Your task to perform on an android device: change your default location settings in chrome Image 0: 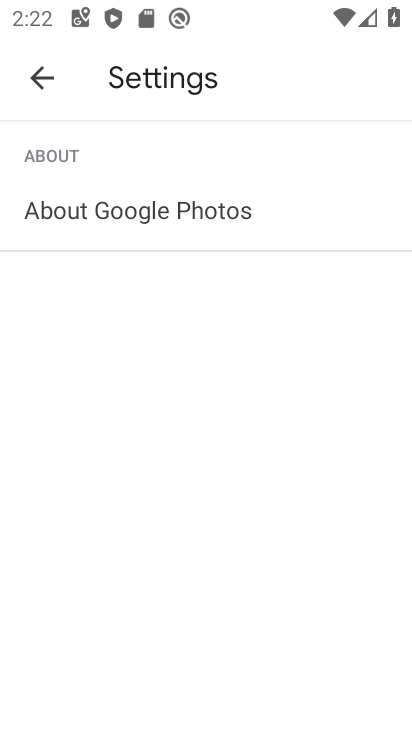
Step 0: press home button
Your task to perform on an android device: change your default location settings in chrome Image 1: 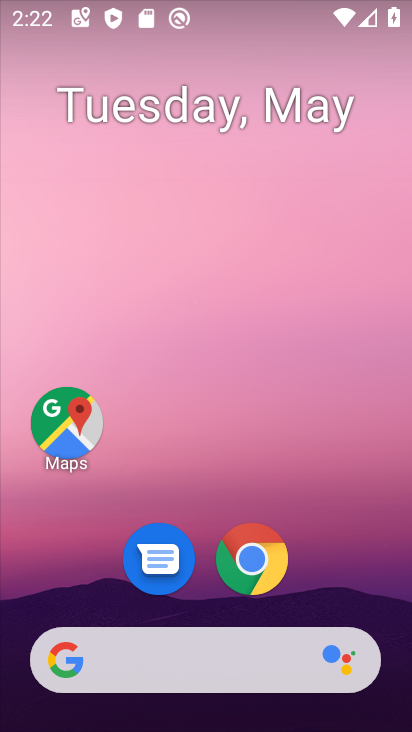
Step 1: drag from (183, 671) to (316, 113)
Your task to perform on an android device: change your default location settings in chrome Image 2: 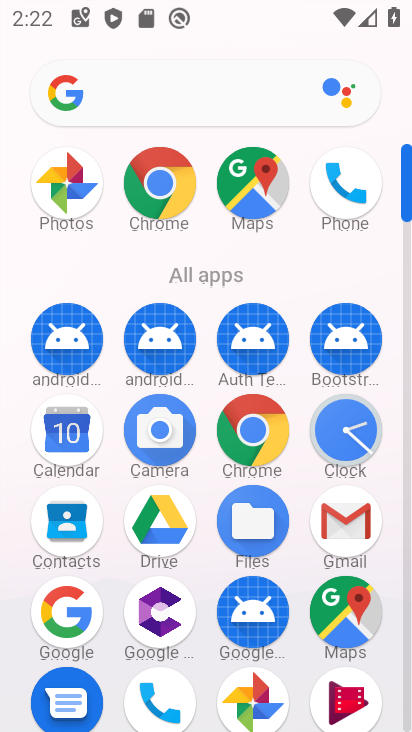
Step 2: click (158, 194)
Your task to perform on an android device: change your default location settings in chrome Image 3: 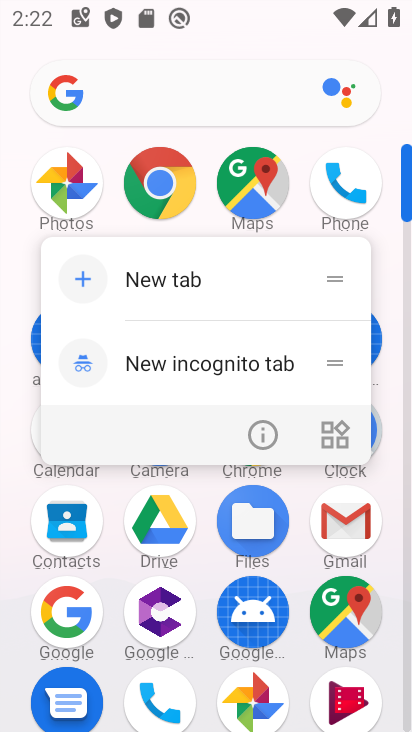
Step 3: click (163, 185)
Your task to perform on an android device: change your default location settings in chrome Image 4: 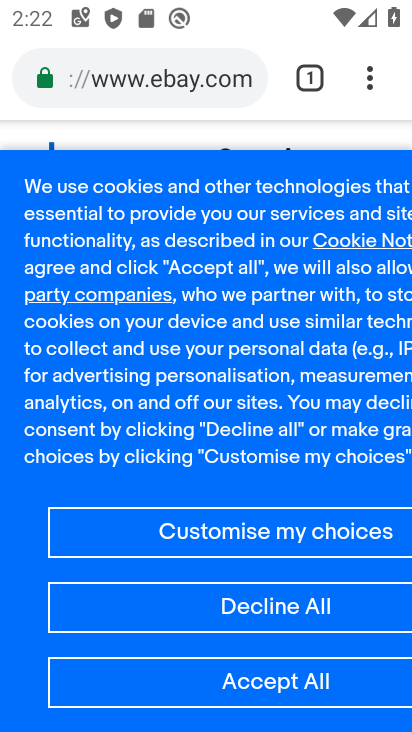
Step 4: drag from (368, 92) to (238, 616)
Your task to perform on an android device: change your default location settings in chrome Image 5: 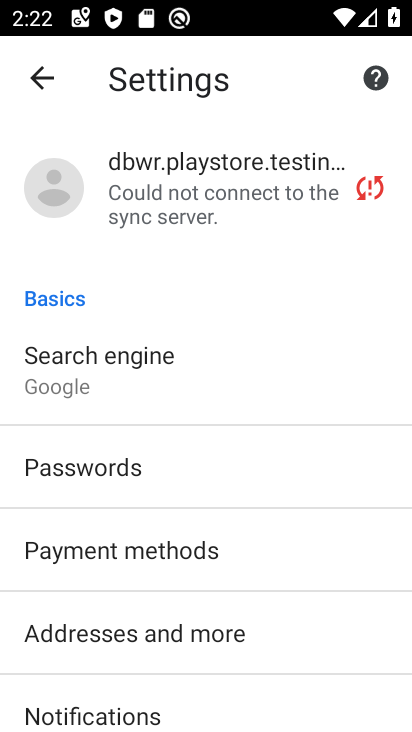
Step 5: click (119, 371)
Your task to perform on an android device: change your default location settings in chrome Image 6: 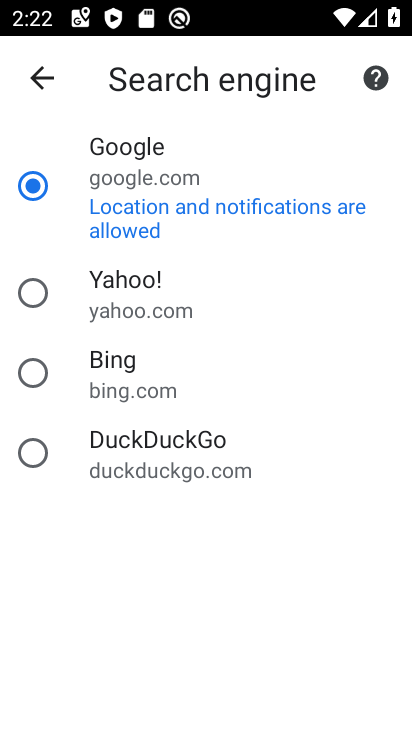
Step 6: click (34, 303)
Your task to perform on an android device: change your default location settings in chrome Image 7: 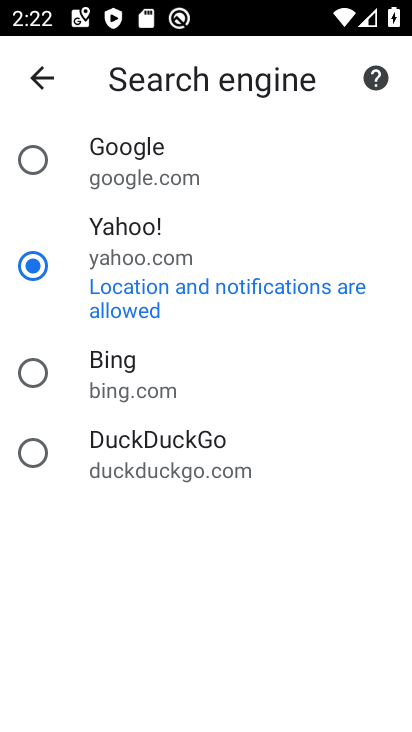
Step 7: task complete